Your task to perform on an android device: Open the stopwatch Image 0: 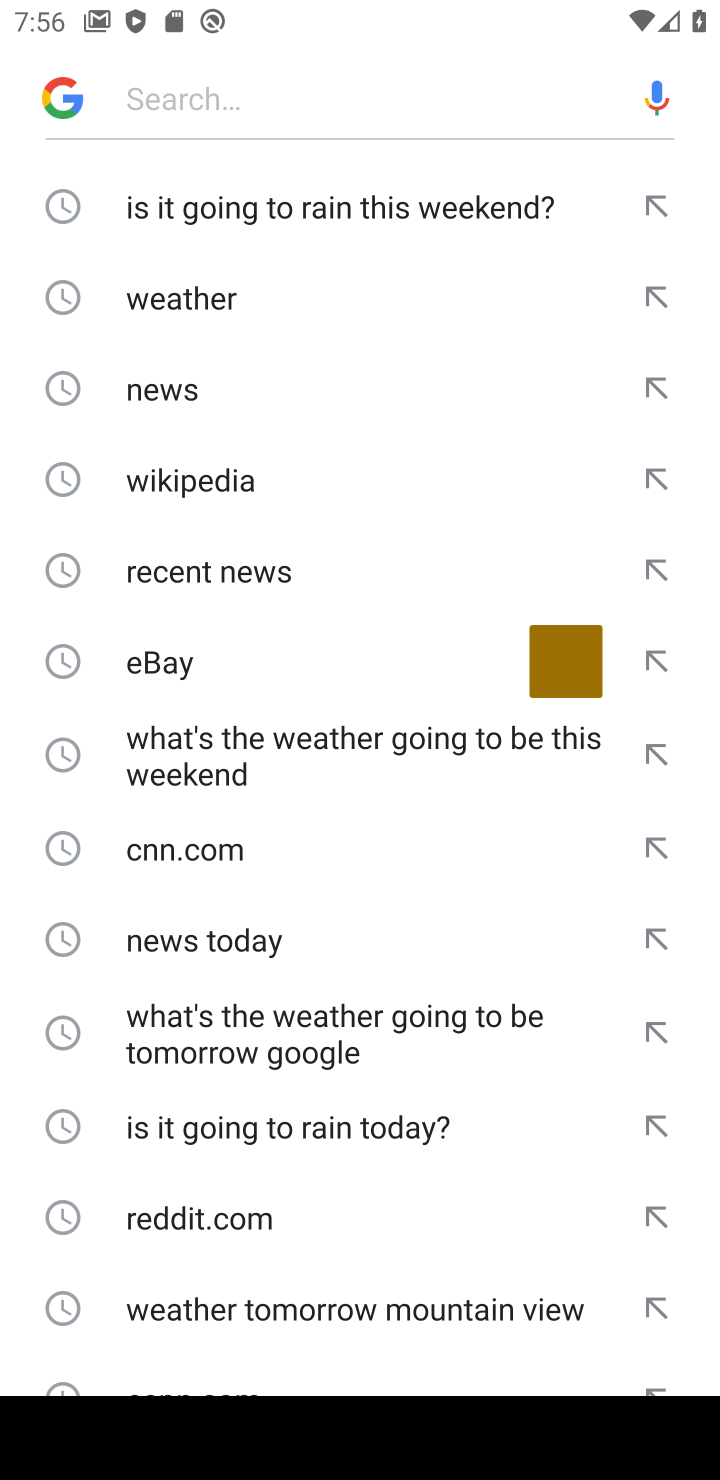
Step 0: press home button
Your task to perform on an android device: Open the stopwatch Image 1: 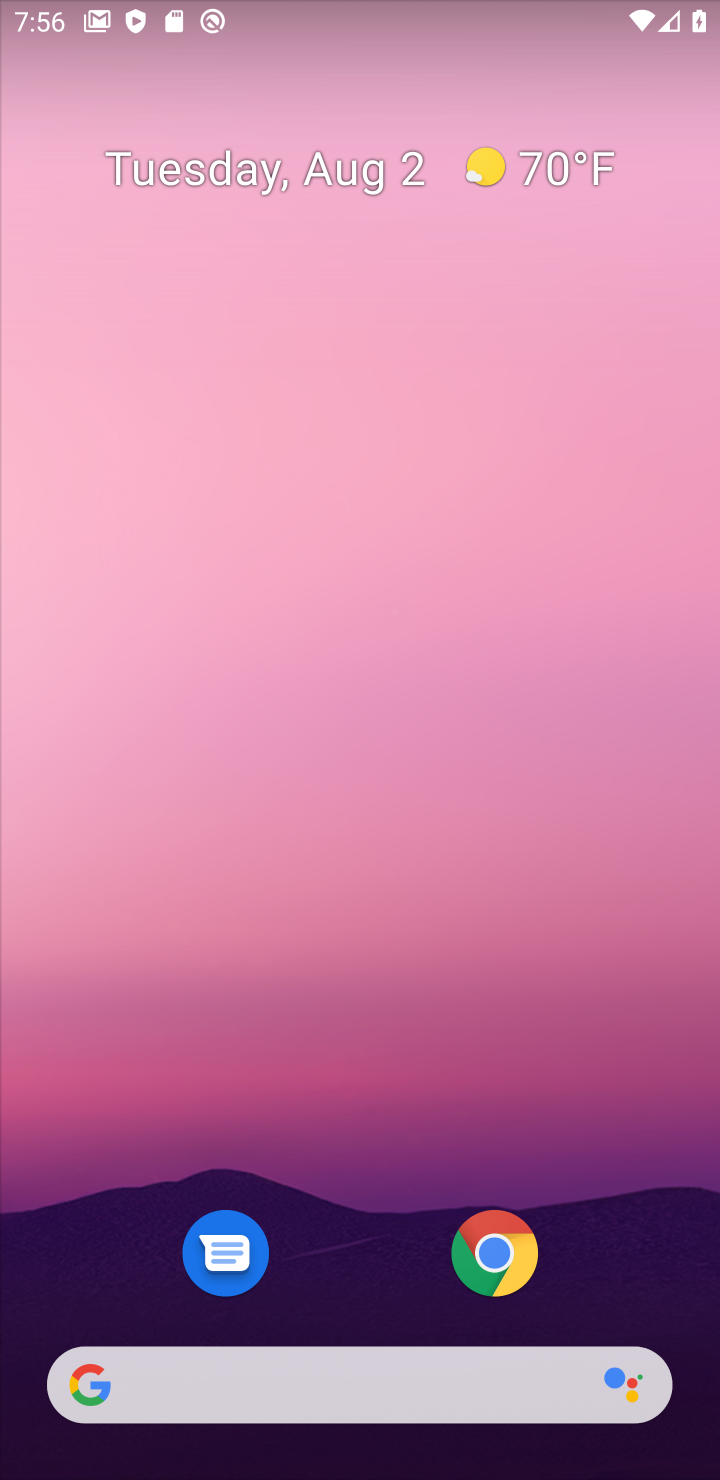
Step 1: click (488, 1249)
Your task to perform on an android device: Open the stopwatch Image 2: 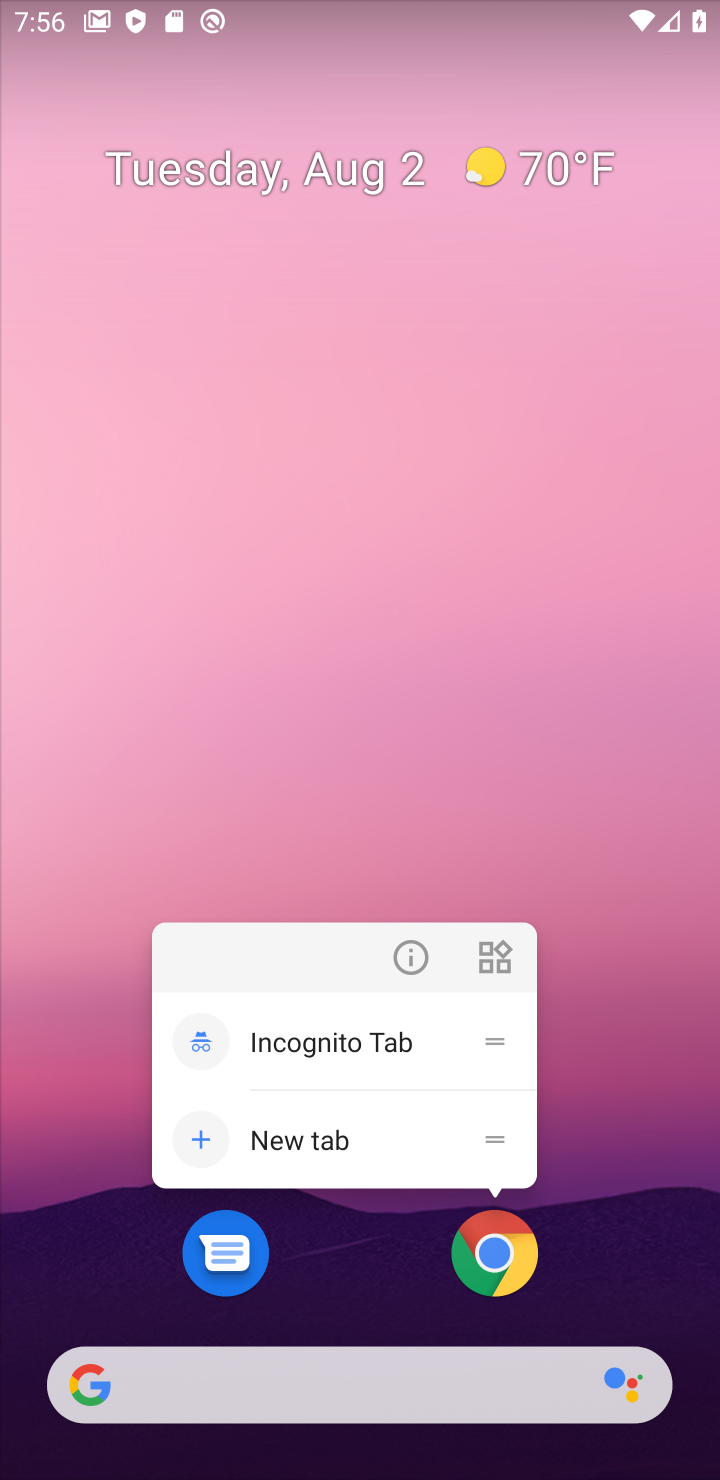
Step 2: click (506, 1249)
Your task to perform on an android device: Open the stopwatch Image 3: 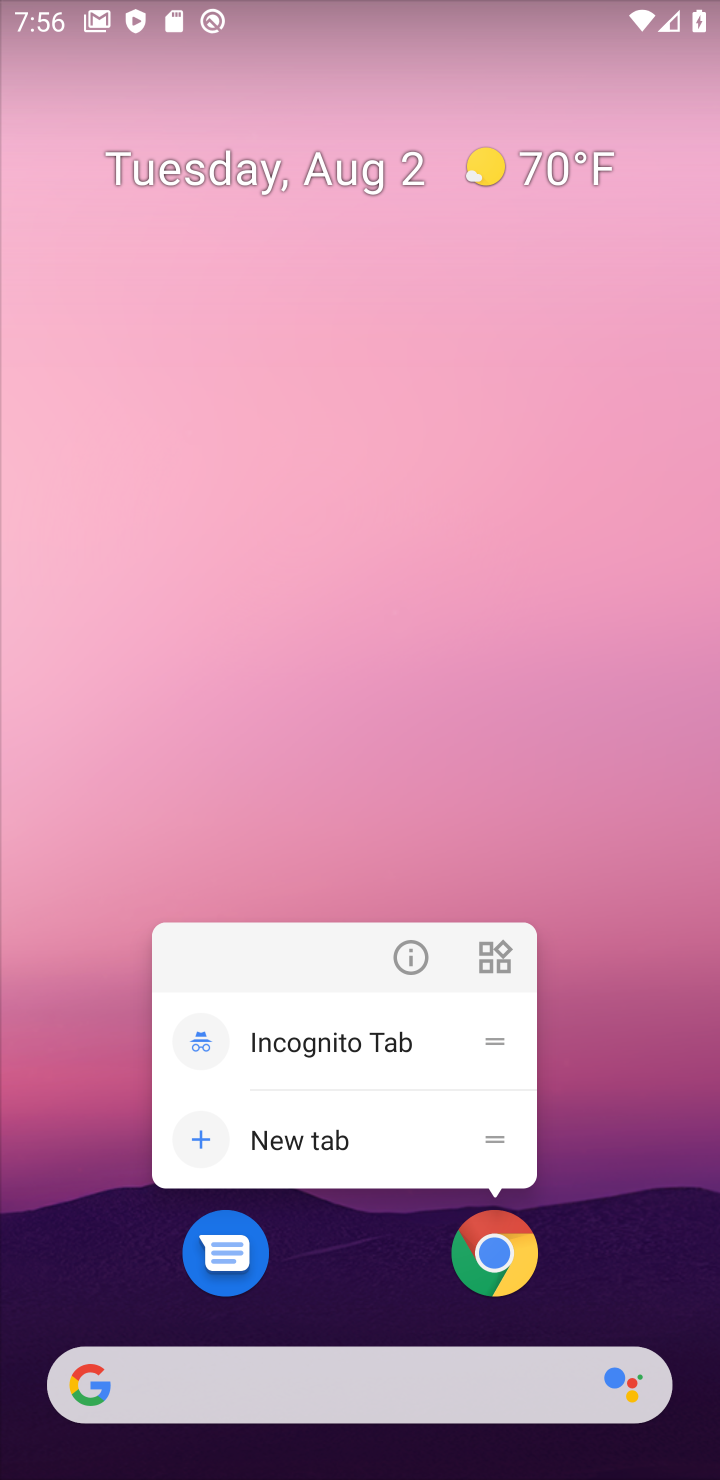
Step 3: click (499, 1256)
Your task to perform on an android device: Open the stopwatch Image 4: 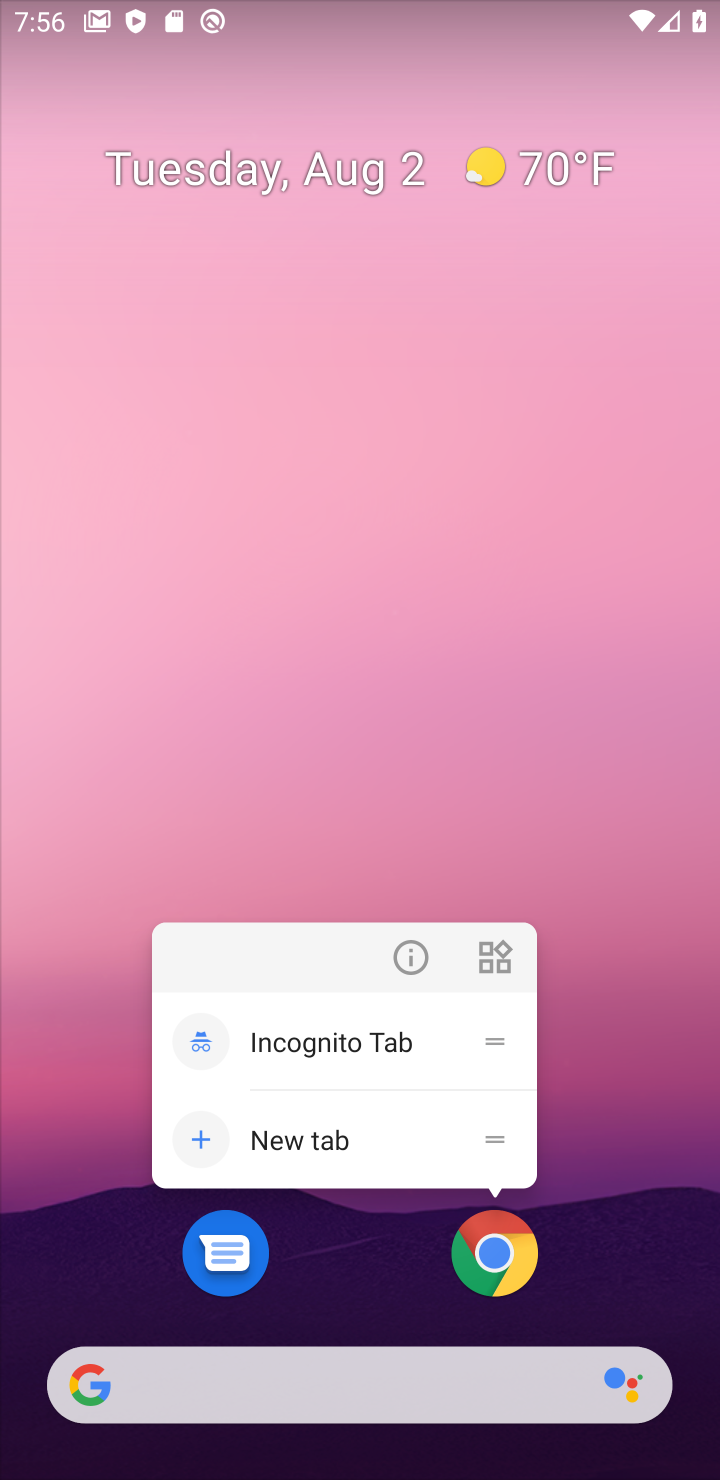
Step 4: click (499, 1256)
Your task to perform on an android device: Open the stopwatch Image 5: 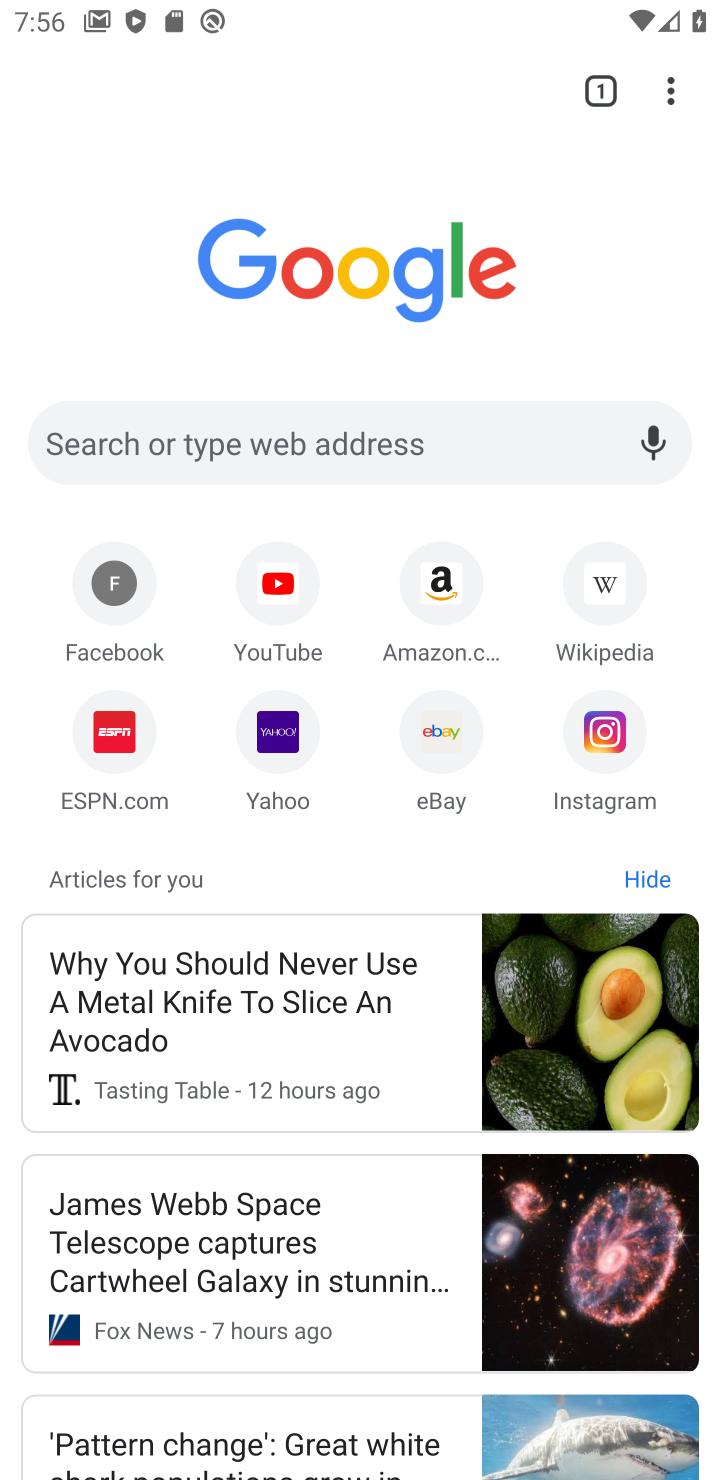
Step 5: press home button
Your task to perform on an android device: Open the stopwatch Image 6: 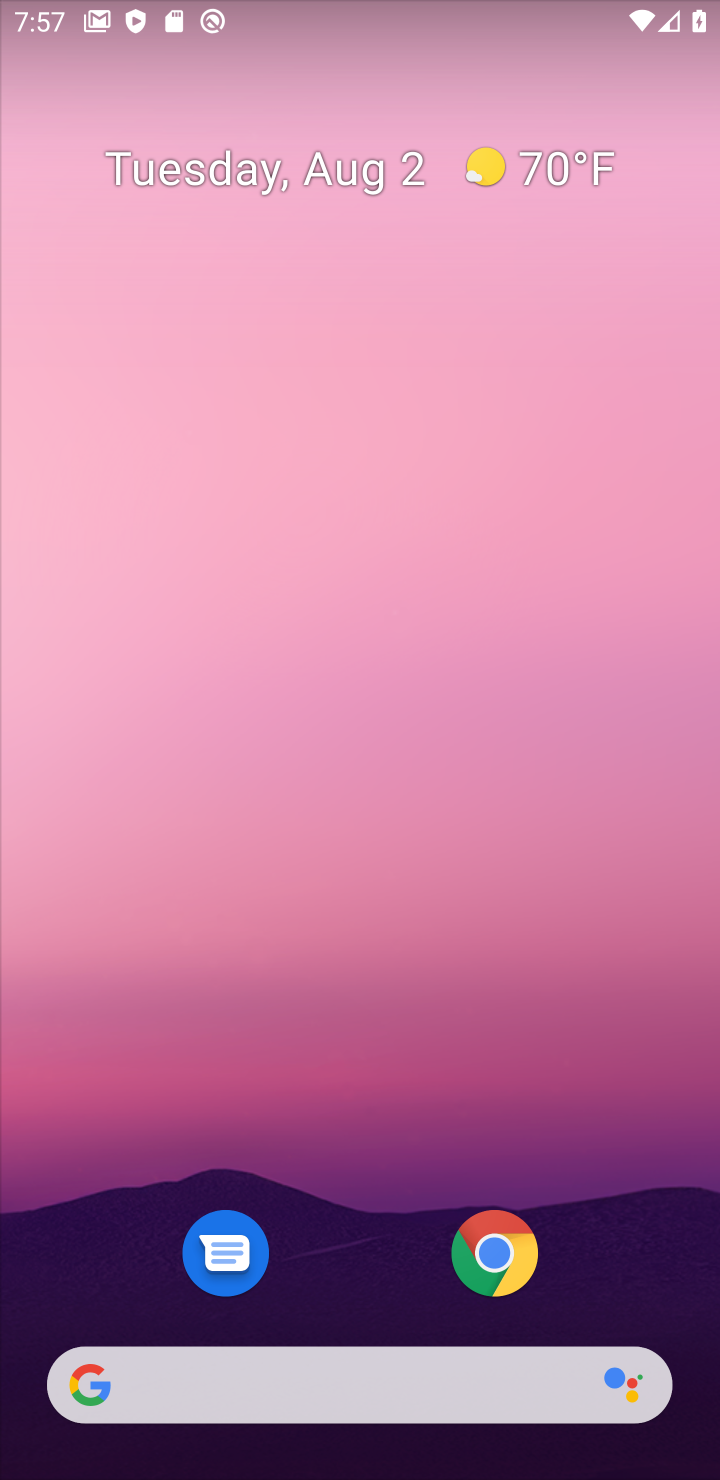
Step 6: drag from (429, 1014) to (610, 387)
Your task to perform on an android device: Open the stopwatch Image 7: 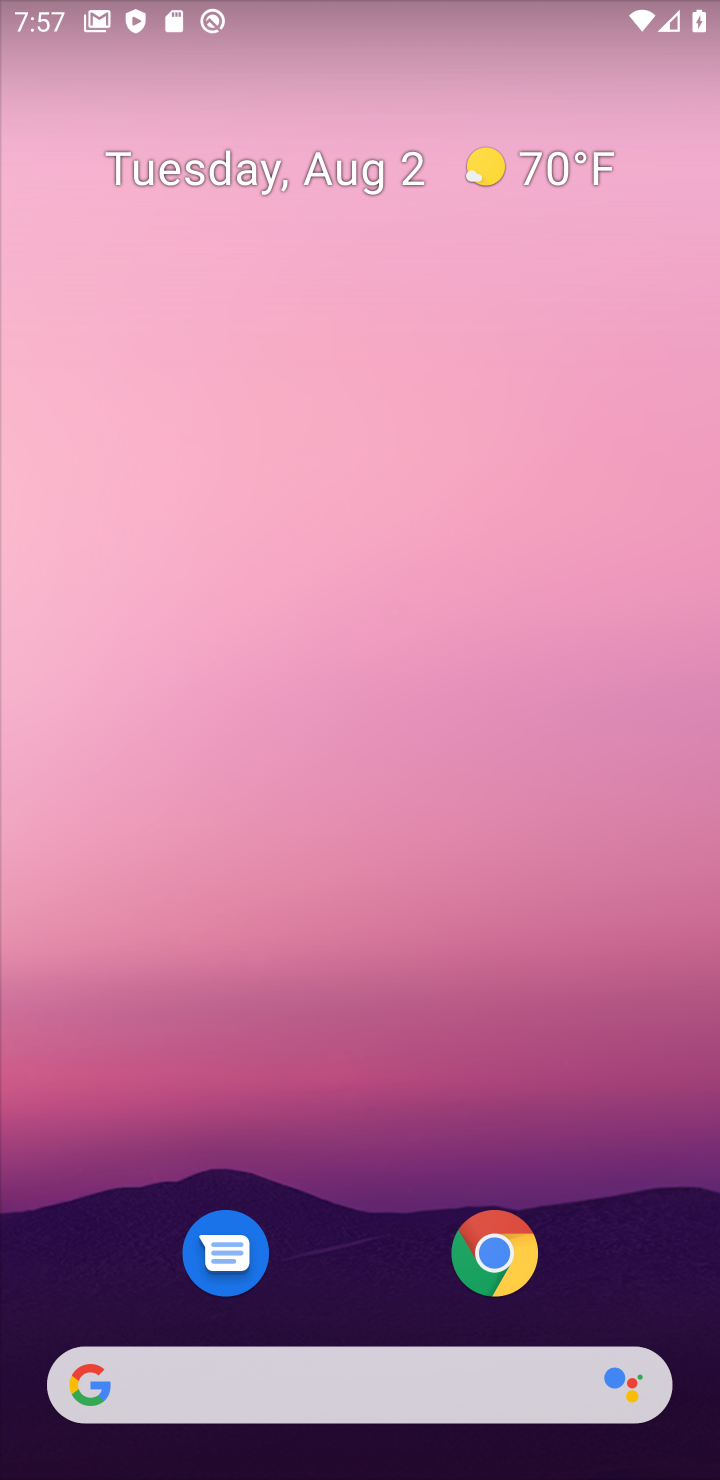
Step 7: drag from (435, 1062) to (643, 275)
Your task to perform on an android device: Open the stopwatch Image 8: 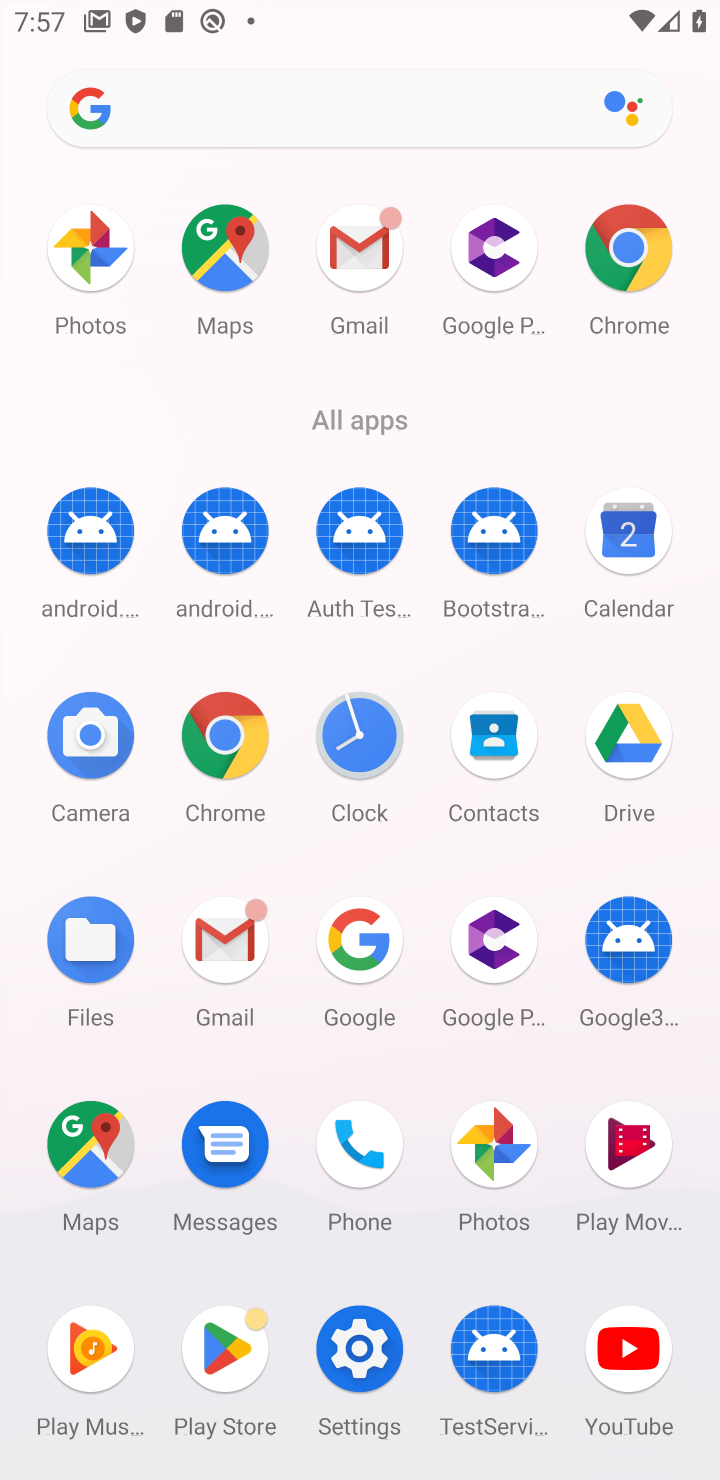
Step 8: click (364, 745)
Your task to perform on an android device: Open the stopwatch Image 9: 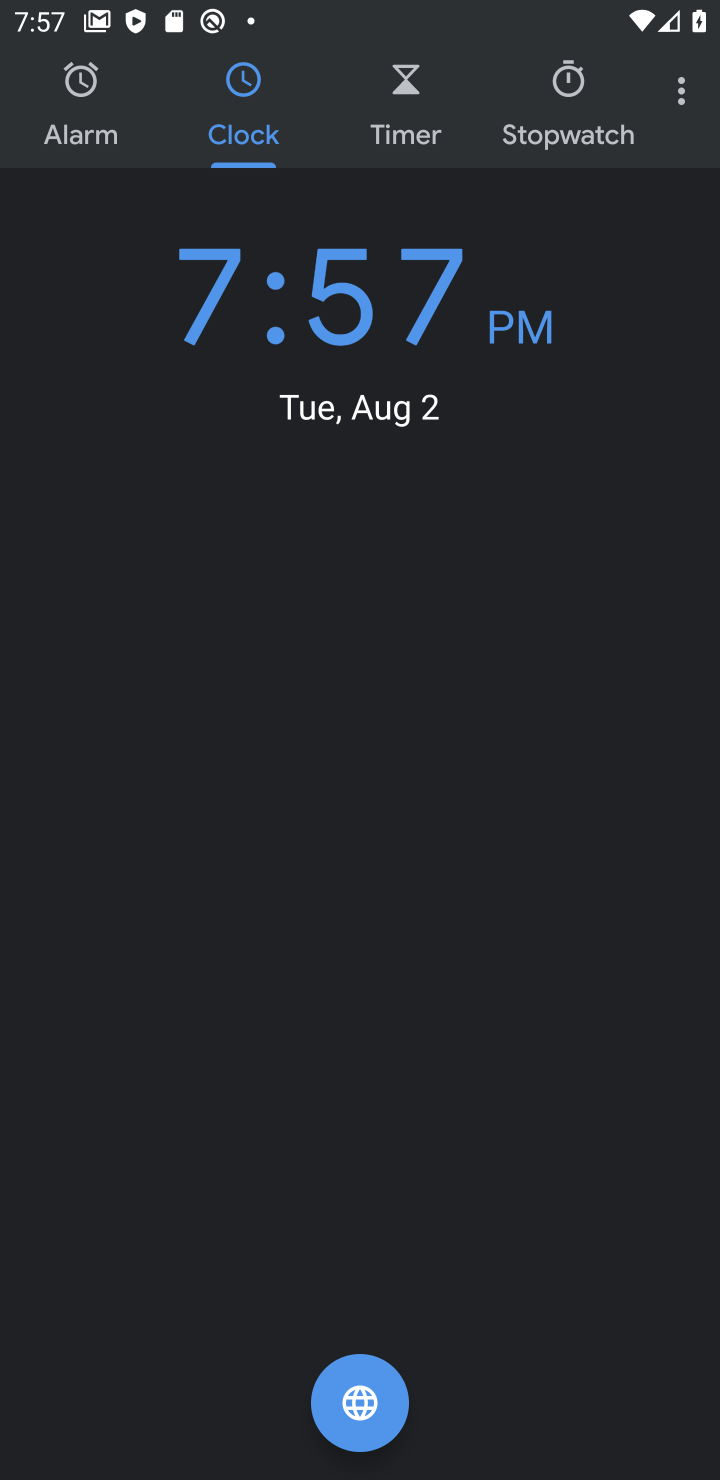
Step 9: click (560, 123)
Your task to perform on an android device: Open the stopwatch Image 10: 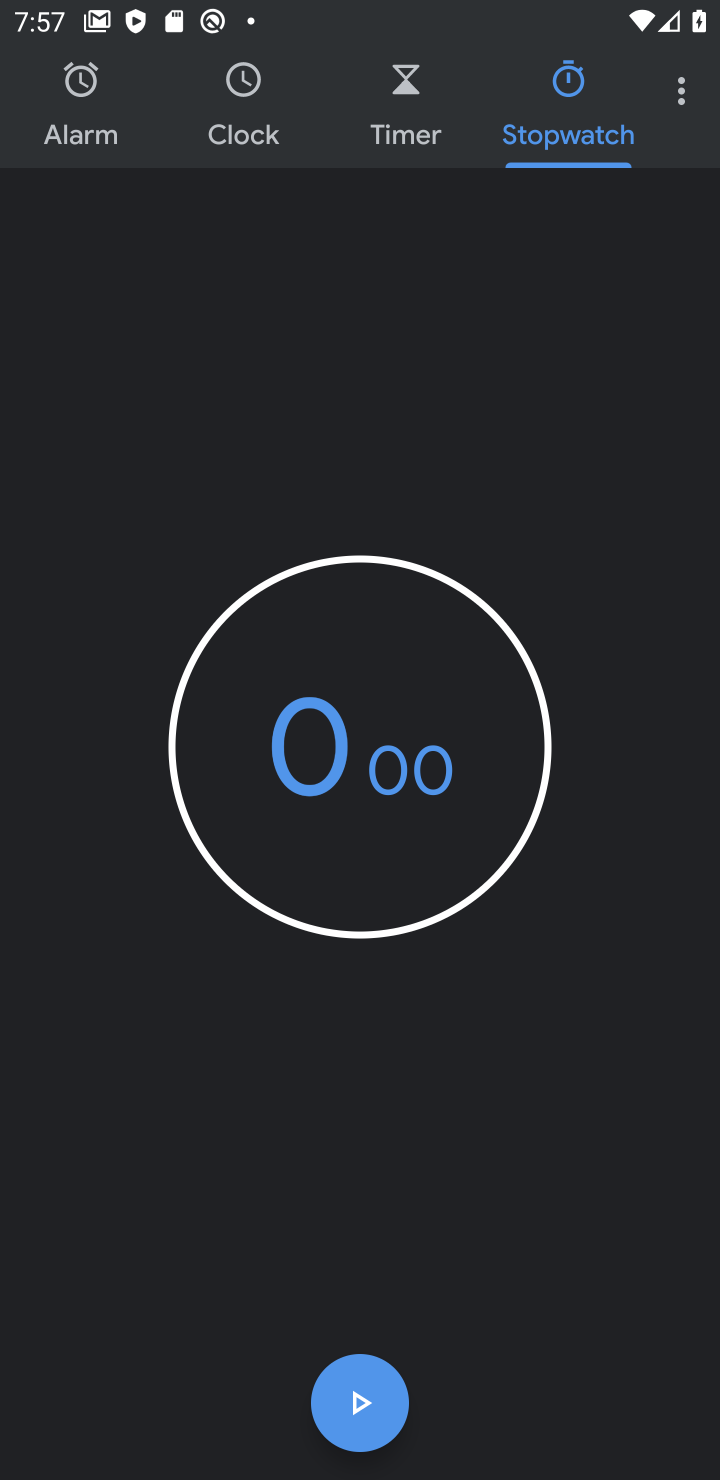
Step 10: task complete